Your task to perform on an android device: change alarm snooze length Image 0: 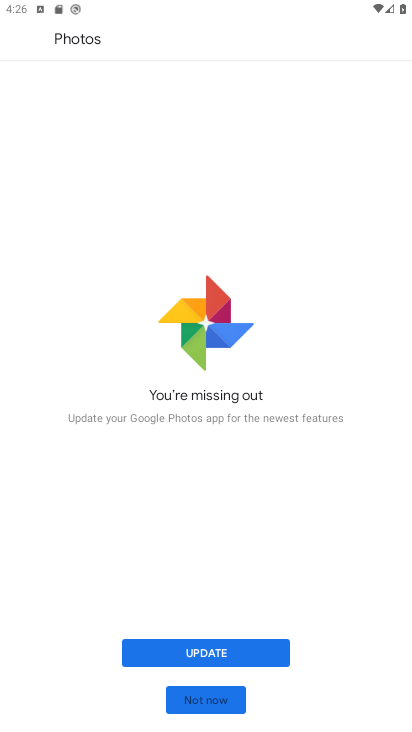
Step 0: press home button
Your task to perform on an android device: change alarm snooze length Image 1: 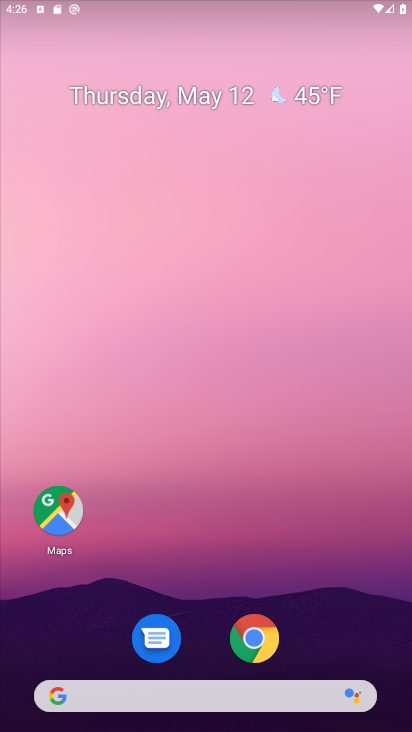
Step 1: drag from (290, 477) to (225, 77)
Your task to perform on an android device: change alarm snooze length Image 2: 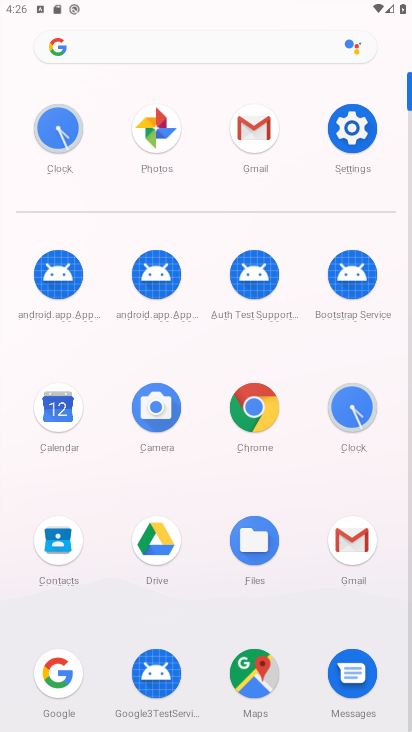
Step 2: click (50, 125)
Your task to perform on an android device: change alarm snooze length Image 3: 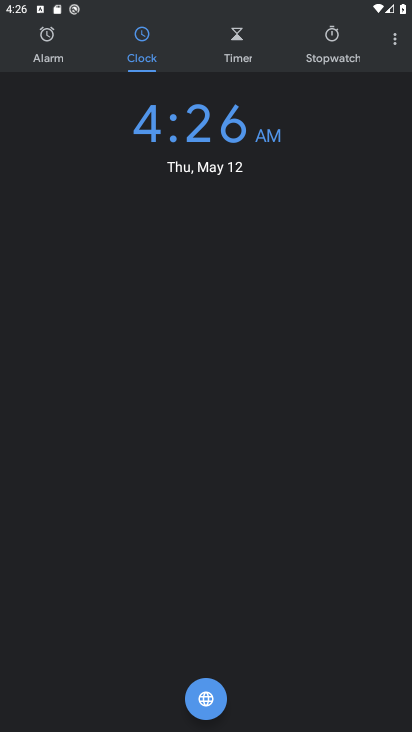
Step 3: click (395, 51)
Your task to perform on an android device: change alarm snooze length Image 4: 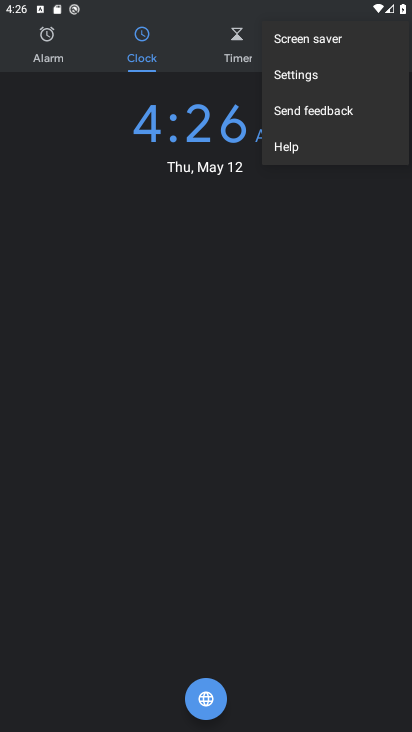
Step 4: click (316, 85)
Your task to perform on an android device: change alarm snooze length Image 5: 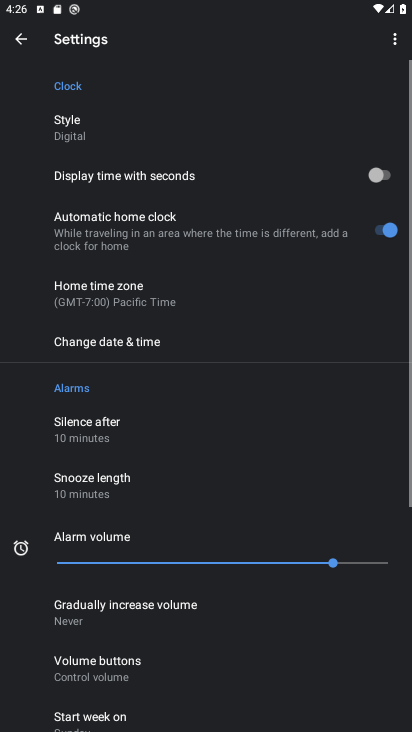
Step 5: click (137, 483)
Your task to perform on an android device: change alarm snooze length Image 6: 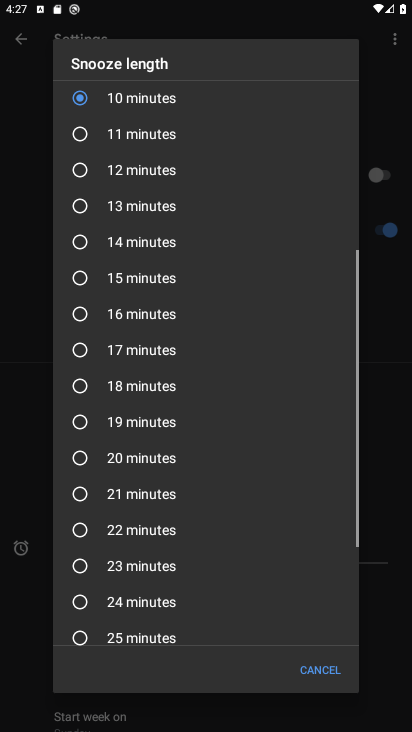
Step 6: click (183, 490)
Your task to perform on an android device: change alarm snooze length Image 7: 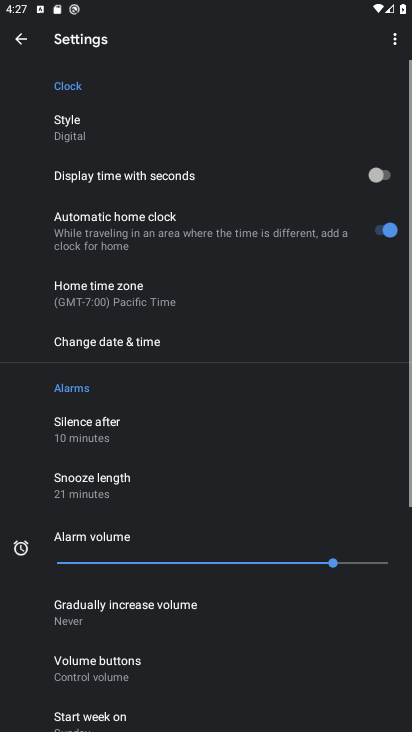
Step 7: task complete